Your task to perform on an android device: open app "Pinterest" (install if not already installed) and enter user name: "Switzerland@yahoo.com" and password: "arithmetics" Image 0: 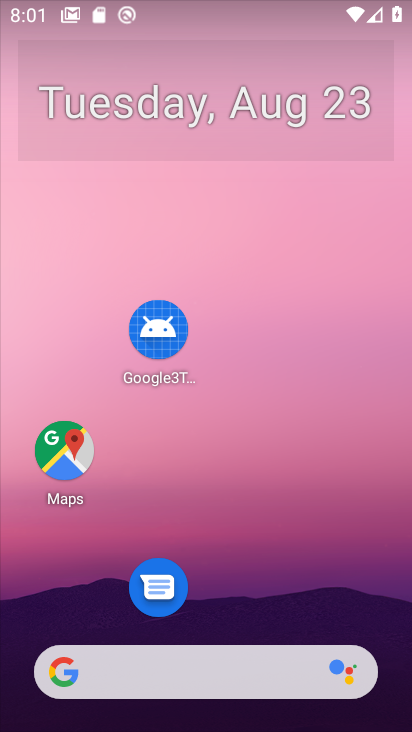
Step 0: drag from (269, 622) to (261, 174)
Your task to perform on an android device: open app "Pinterest" (install if not already installed) and enter user name: "Switzerland@yahoo.com" and password: "arithmetics" Image 1: 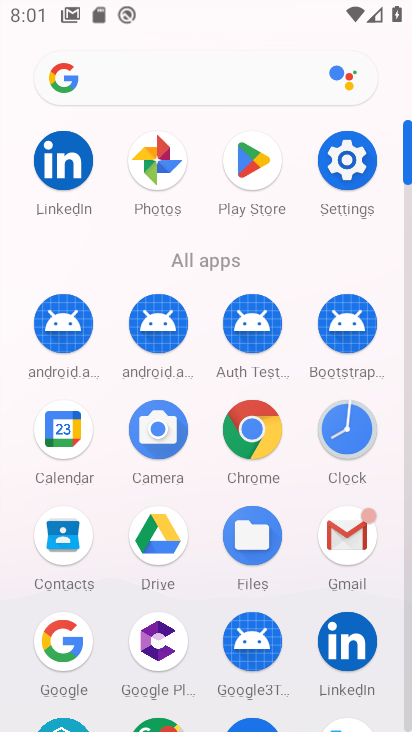
Step 1: click (336, 178)
Your task to perform on an android device: open app "Pinterest" (install if not already installed) and enter user name: "Switzerland@yahoo.com" and password: "arithmetics" Image 2: 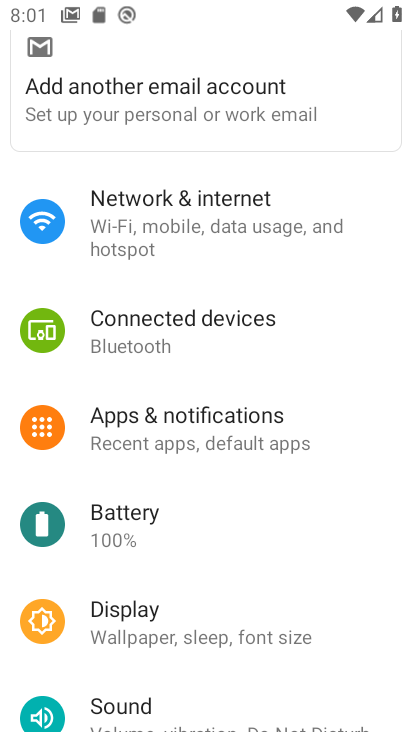
Step 2: press home button
Your task to perform on an android device: open app "Pinterest" (install if not already installed) and enter user name: "Switzerland@yahoo.com" and password: "arithmetics" Image 3: 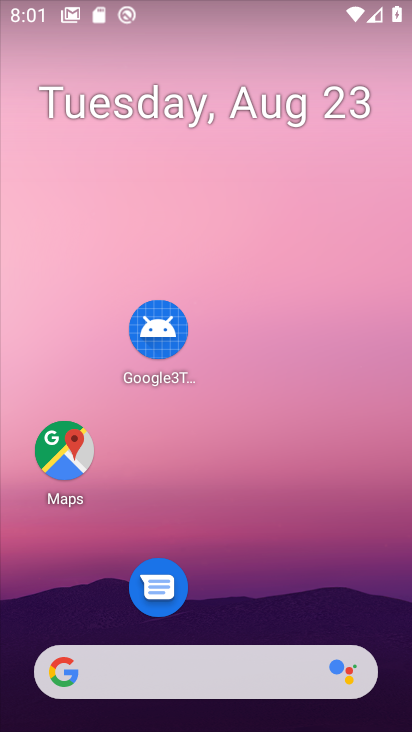
Step 3: drag from (285, 629) to (316, 176)
Your task to perform on an android device: open app "Pinterest" (install if not already installed) and enter user name: "Switzerland@yahoo.com" and password: "arithmetics" Image 4: 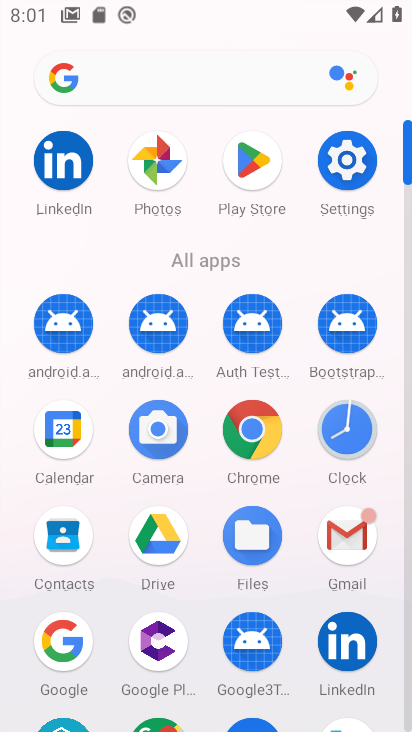
Step 4: click (253, 179)
Your task to perform on an android device: open app "Pinterest" (install if not already installed) and enter user name: "Switzerland@yahoo.com" and password: "arithmetics" Image 5: 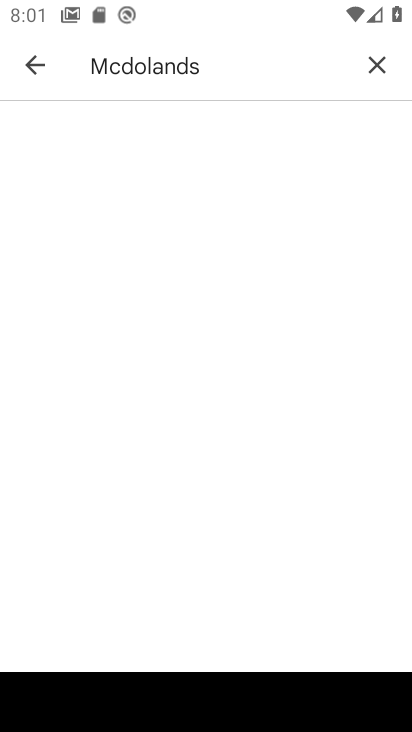
Step 5: click (366, 64)
Your task to perform on an android device: open app "Pinterest" (install if not already installed) and enter user name: "Switzerland@yahoo.com" and password: "arithmetics" Image 6: 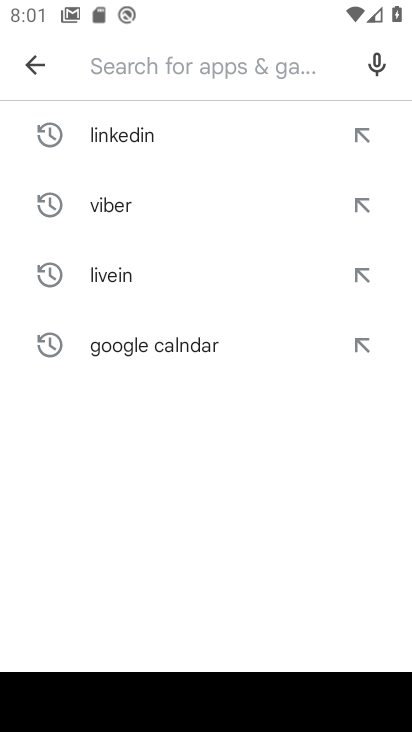
Step 6: type "pinterest"
Your task to perform on an android device: open app "Pinterest" (install if not already installed) and enter user name: "Switzerland@yahoo.com" and password: "arithmetics" Image 7: 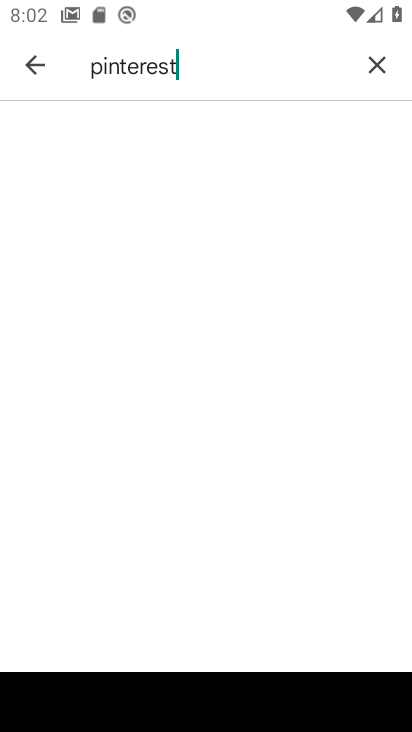
Step 7: task complete